Your task to perform on an android device: change notification settings in the gmail app Image 0: 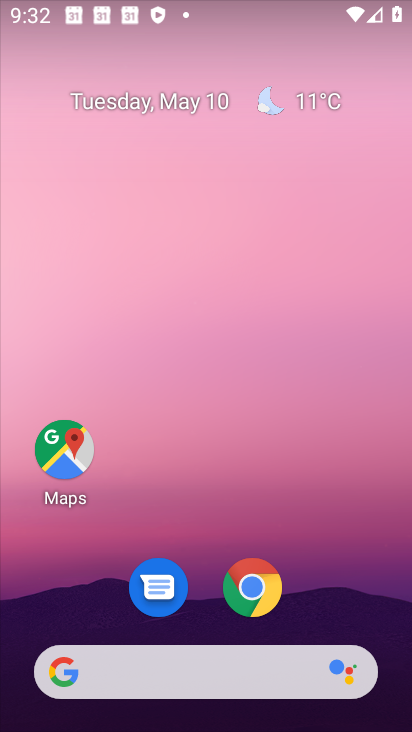
Step 0: drag from (322, 554) to (315, 126)
Your task to perform on an android device: change notification settings in the gmail app Image 1: 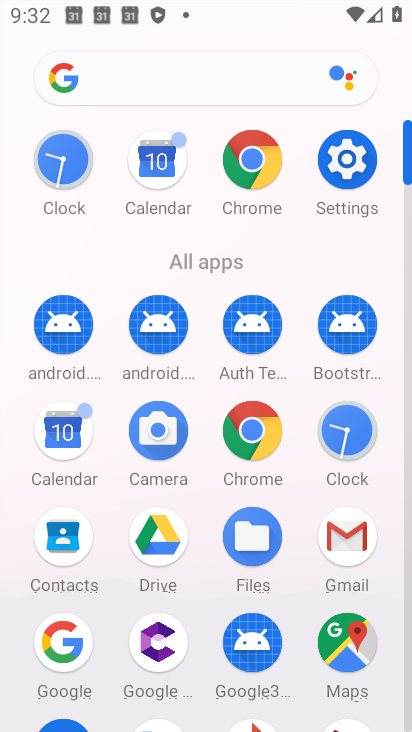
Step 1: click (344, 531)
Your task to perform on an android device: change notification settings in the gmail app Image 2: 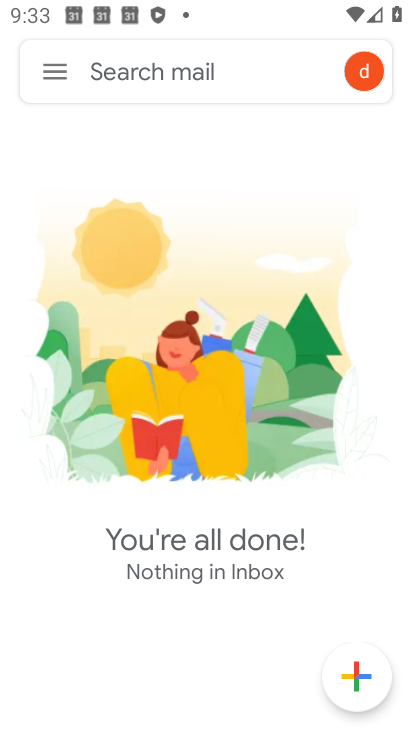
Step 2: click (50, 72)
Your task to perform on an android device: change notification settings in the gmail app Image 3: 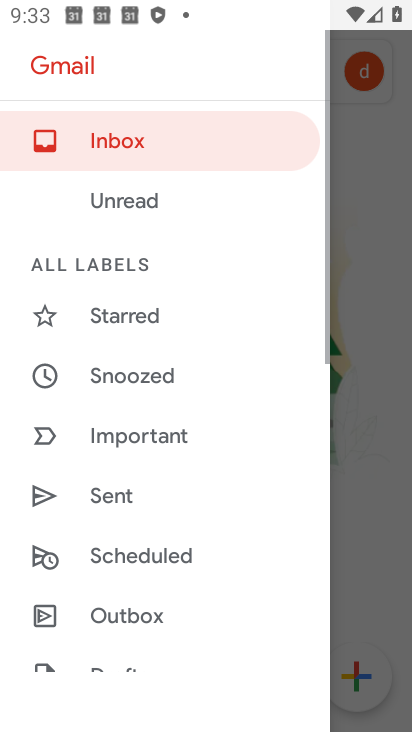
Step 3: drag from (170, 631) to (179, 289)
Your task to perform on an android device: change notification settings in the gmail app Image 4: 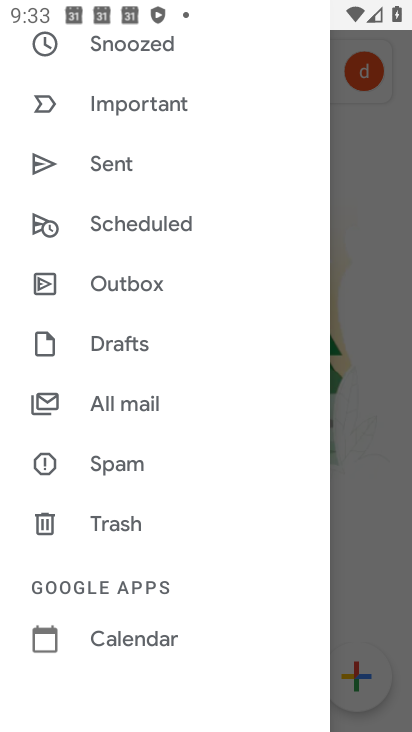
Step 4: drag from (205, 198) to (183, 523)
Your task to perform on an android device: change notification settings in the gmail app Image 5: 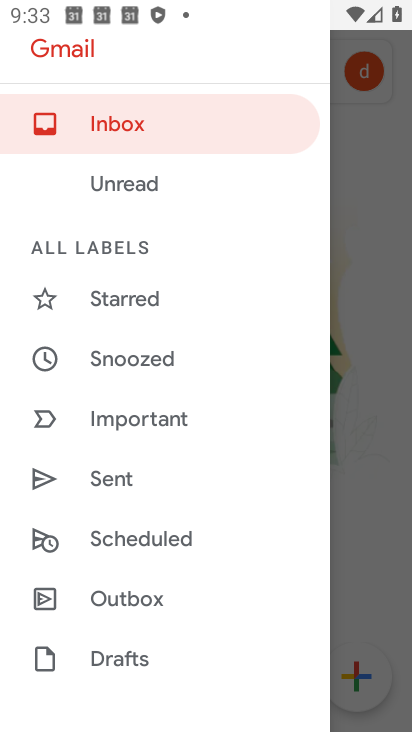
Step 5: drag from (201, 626) to (175, 101)
Your task to perform on an android device: change notification settings in the gmail app Image 6: 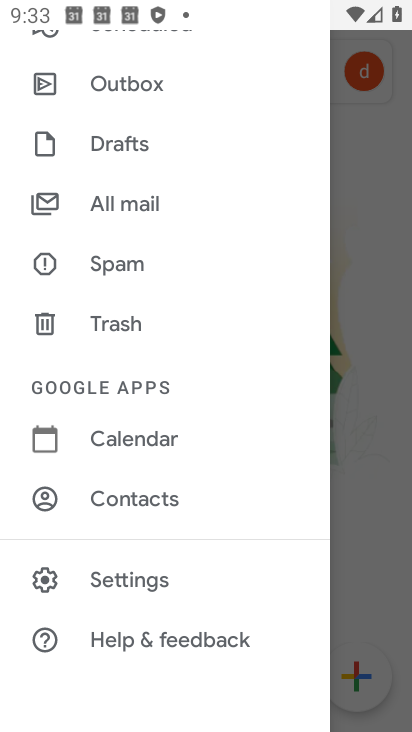
Step 6: click (135, 578)
Your task to perform on an android device: change notification settings in the gmail app Image 7: 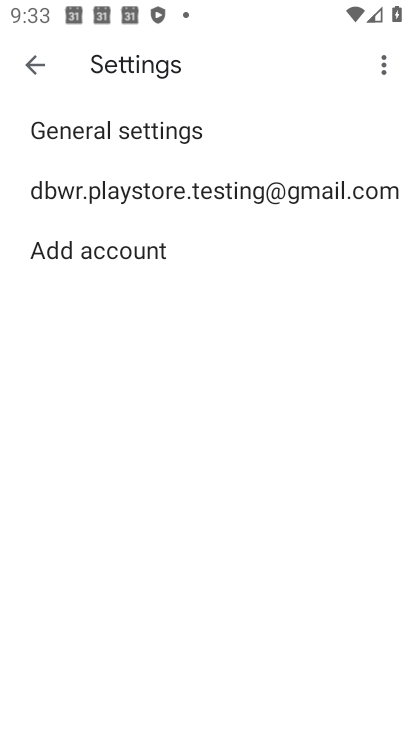
Step 7: click (221, 185)
Your task to perform on an android device: change notification settings in the gmail app Image 8: 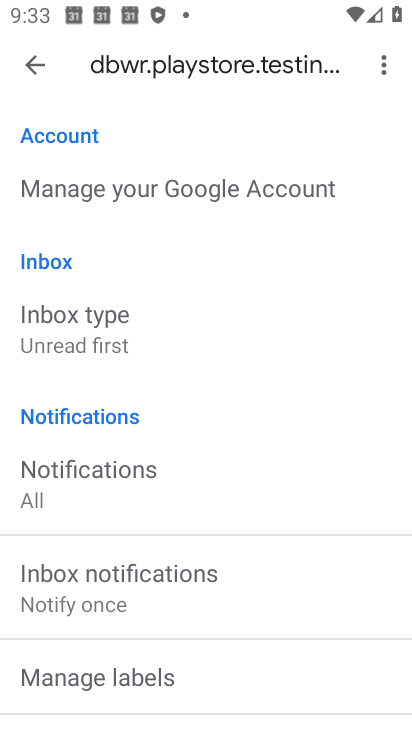
Step 8: click (66, 455)
Your task to perform on an android device: change notification settings in the gmail app Image 9: 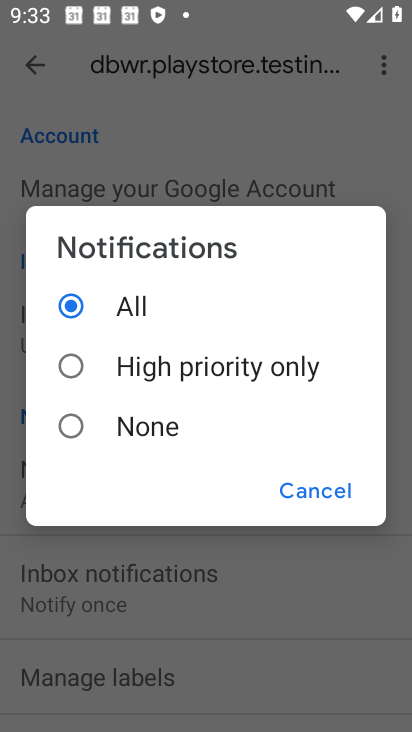
Step 9: click (108, 431)
Your task to perform on an android device: change notification settings in the gmail app Image 10: 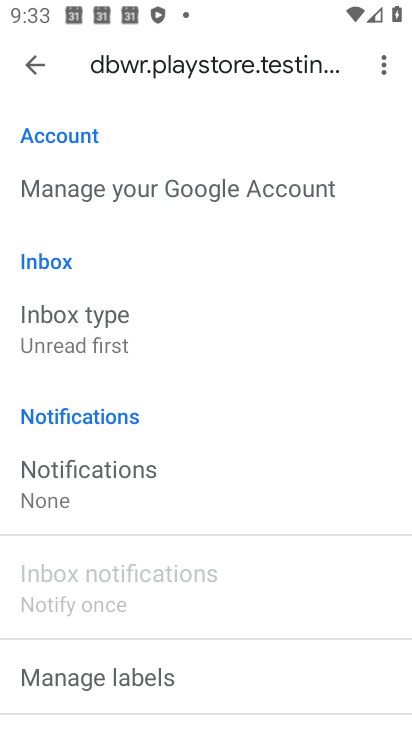
Step 10: task complete